Your task to perform on an android device: check google app version Image 0: 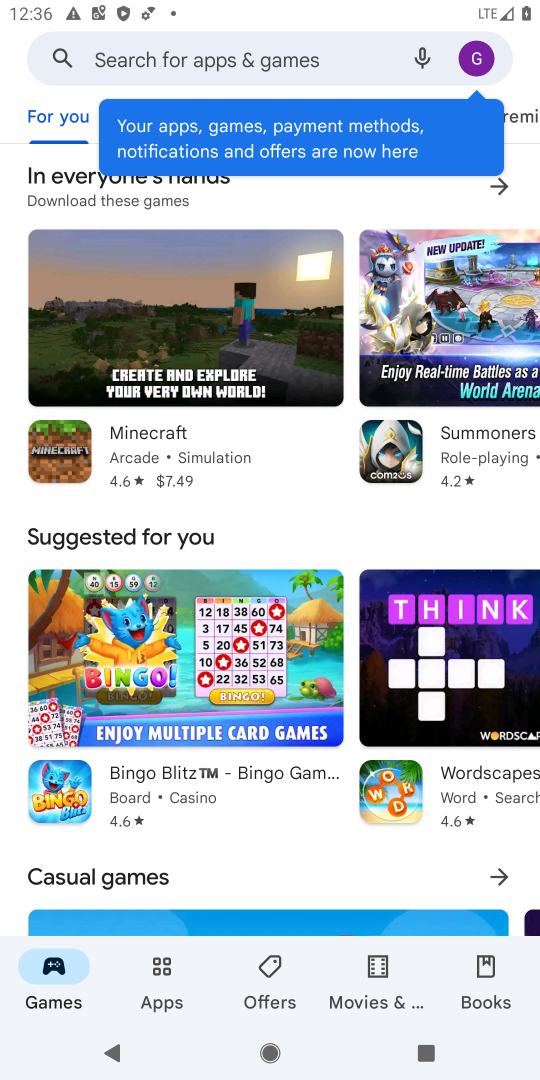
Step 0: press back button
Your task to perform on an android device: check google app version Image 1: 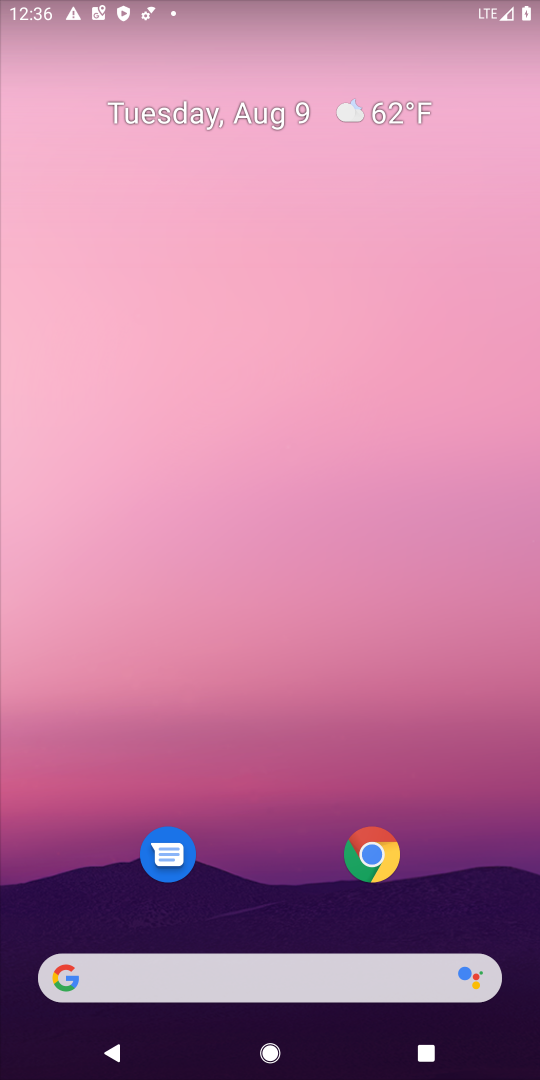
Step 1: drag from (257, 907) to (363, 134)
Your task to perform on an android device: check google app version Image 2: 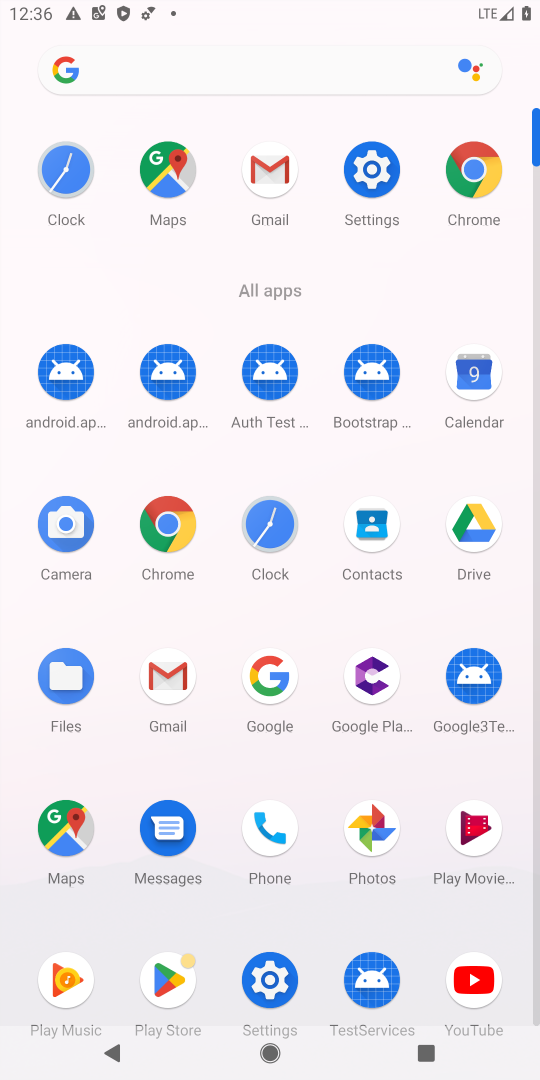
Step 2: click (272, 679)
Your task to perform on an android device: check google app version Image 3: 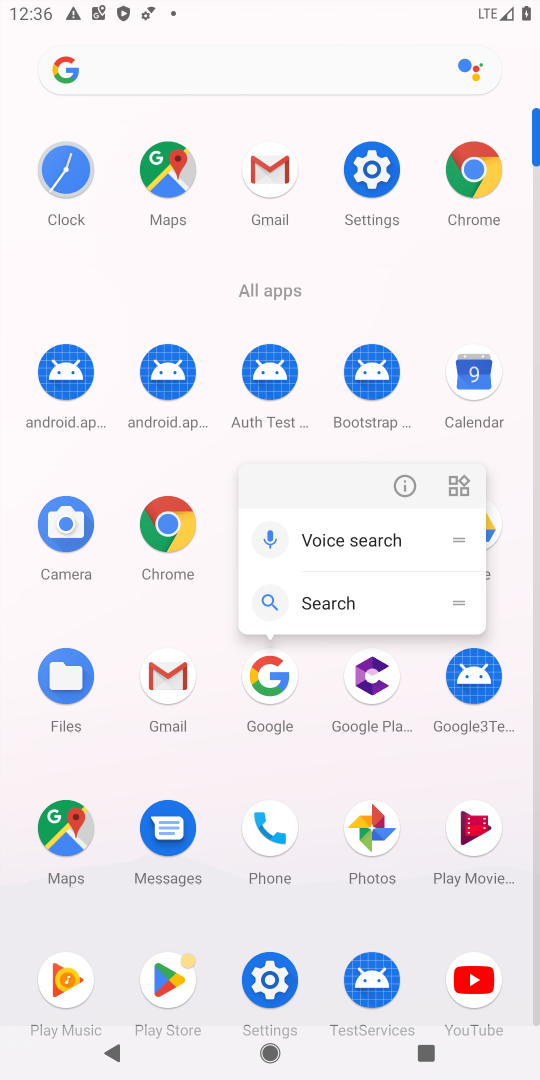
Step 3: click (400, 487)
Your task to perform on an android device: check google app version Image 4: 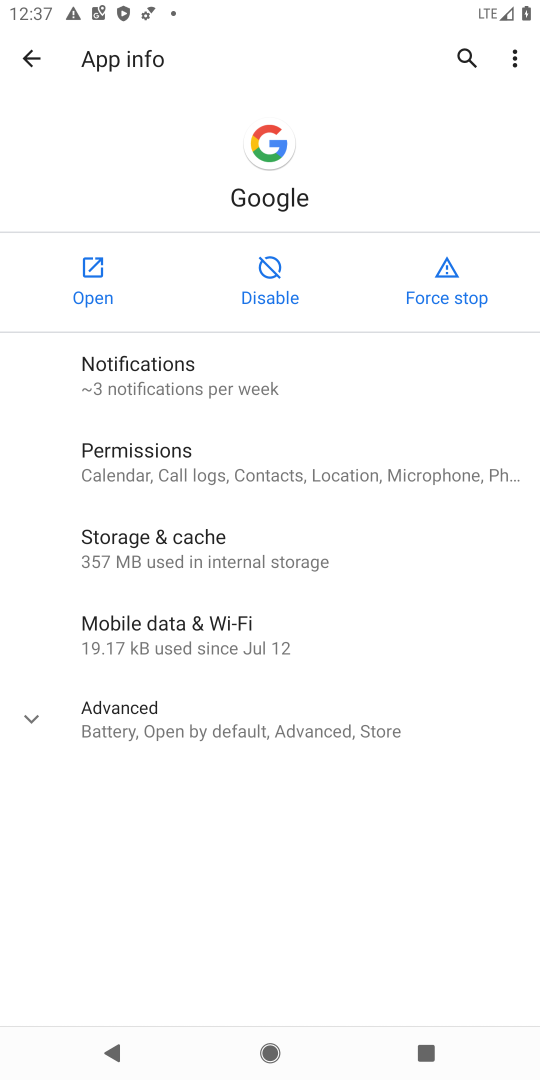
Step 4: click (186, 710)
Your task to perform on an android device: check google app version Image 5: 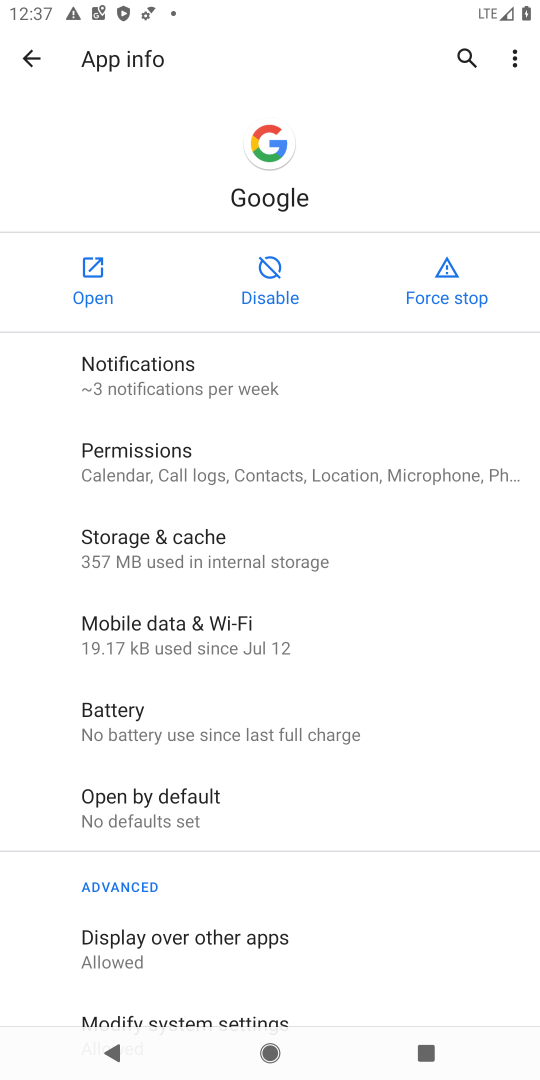
Step 5: task complete